Your task to perform on an android device: Set the phone to "Do not disturb". Image 0: 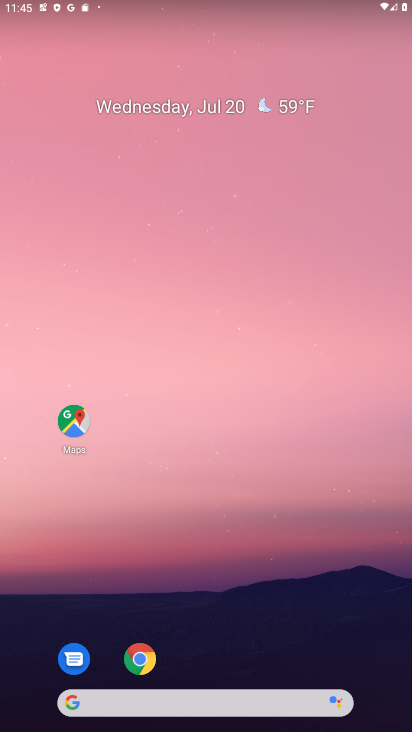
Step 0: drag from (181, 11) to (181, 458)
Your task to perform on an android device: Set the phone to "Do not disturb". Image 1: 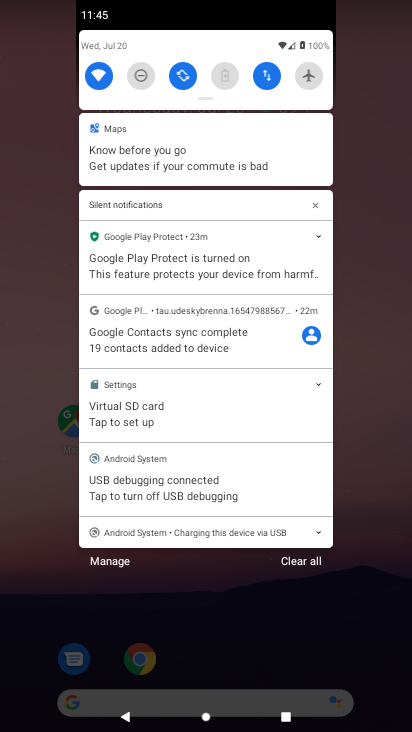
Step 1: click (132, 77)
Your task to perform on an android device: Set the phone to "Do not disturb". Image 2: 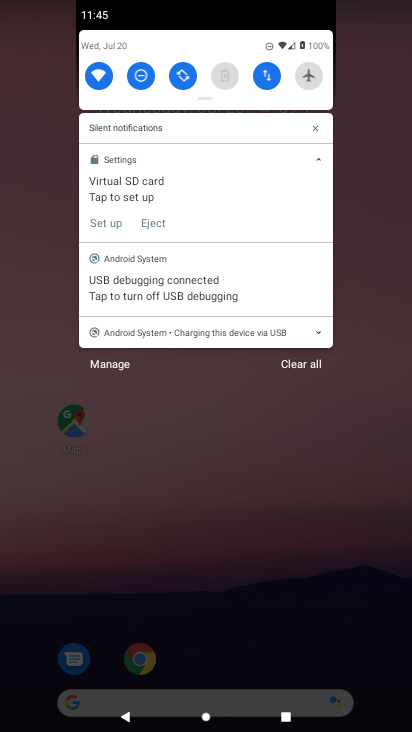
Step 2: task complete